Your task to perform on an android device: Search for vegetarian restaurants on Maps Image 0: 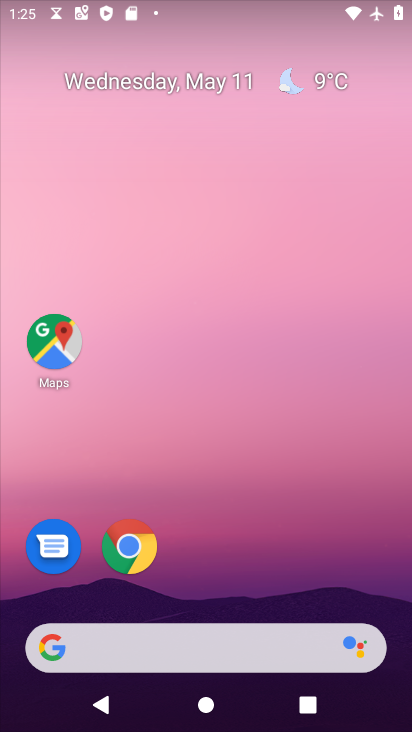
Step 0: drag from (281, 598) to (290, 0)
Your task to perform on an android device: Search for vegetarian restaurants on Maps Image 1: 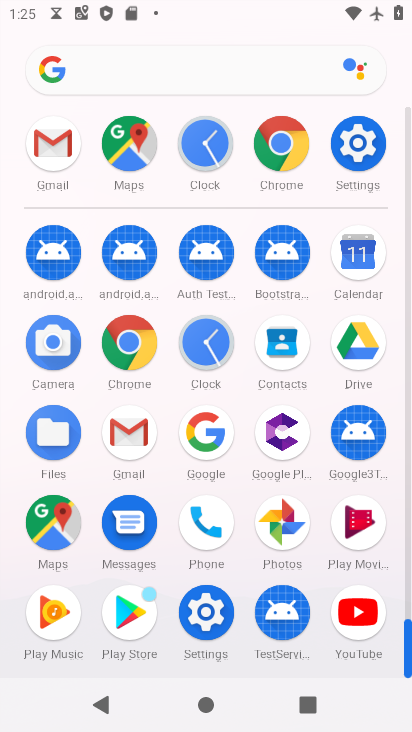
Step 1: click (123, 353)
Your task to perform on an android device: Search for vegetarian restaurants on Maps Image 2: 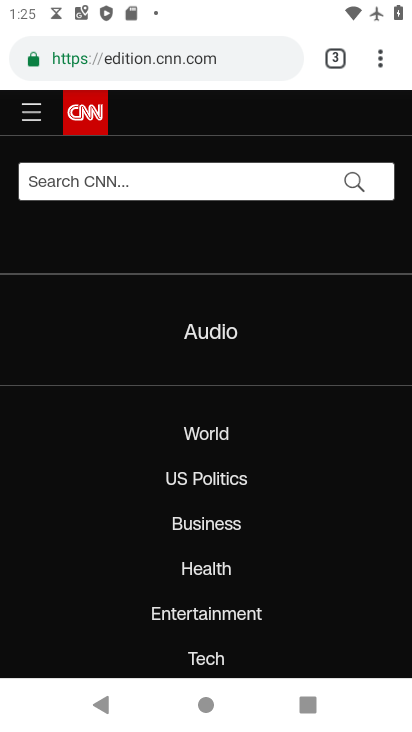
Step 2: press back button
Your task to perform on an android device: Search for vegetarian restaurants on Maps Image 3: 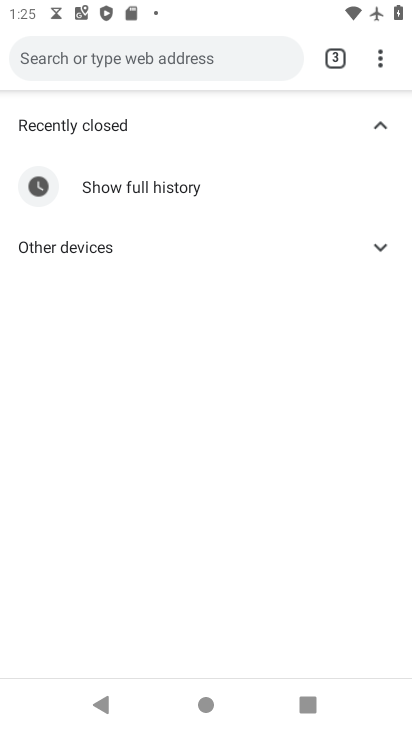
Step 3: press home button
Your task to perform on an android device: Search for vegetarian restaurants on Maps Image 4: 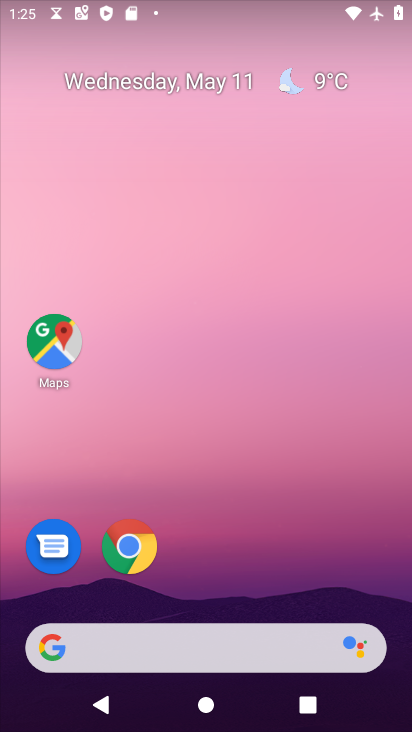
Step 4: drag from (283, 594) to (297, 63)
Your task to perform on an android device: Search for vegetarian restaurants on Maps Image 5: 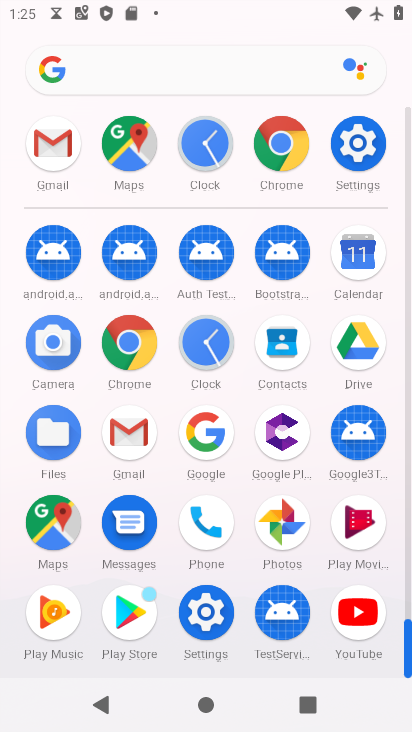
Step 5: click (51, 526)
Your task to perform on an android device: Search for vegetarian restaurants on Maps Image 6: 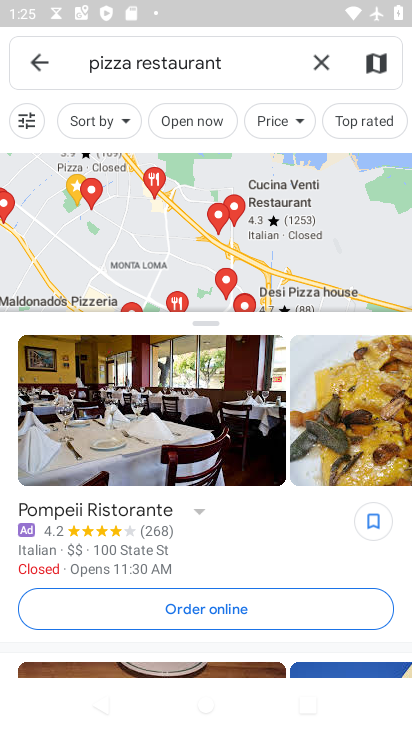
Step 6: click (325, 61)
Your task to perform on an android device: Search for vegetarian restaurants on Maps Image 7: 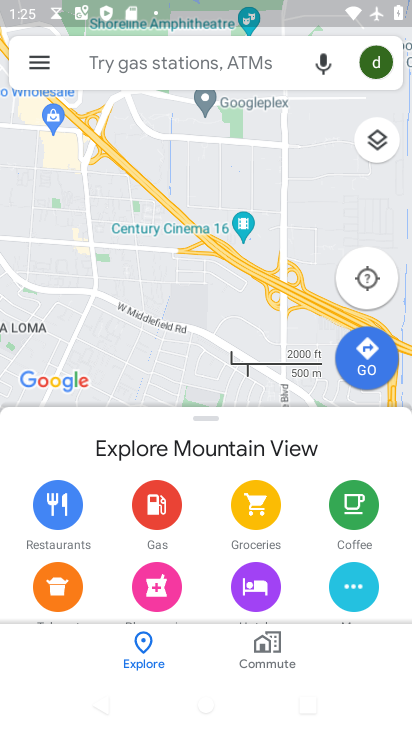
Step 7: click (235, 63)
Your task to perform on an android device: Search for vegetarian restaurants on Maps Image 8: 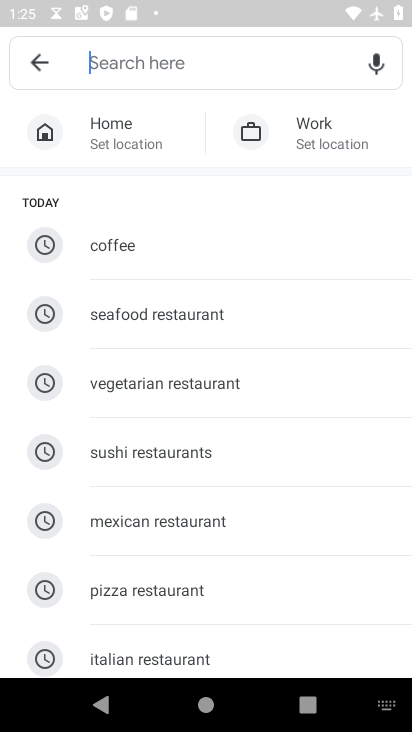
Step 8: click (255, 407)
Your task to perform on an android device: Search for vegetarian restaurants on Maps Image 9: 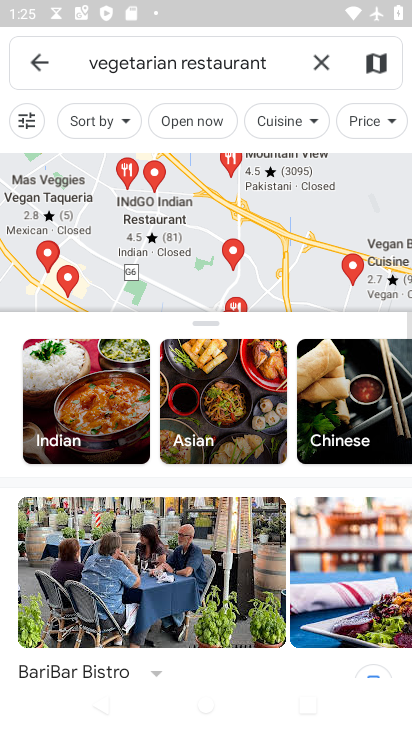
Step 9: task complete